Your task to perform on an android device: add a contact Image 0: 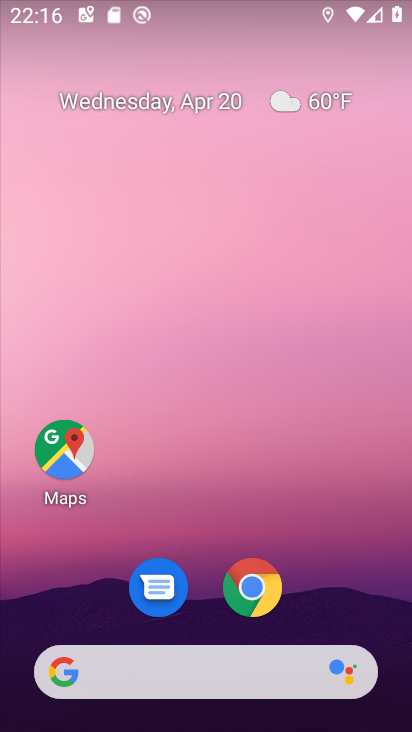
Step 0: drag from (318, 510) to (98, 66)
Your task to perform on an android device: add a contact Image 1: 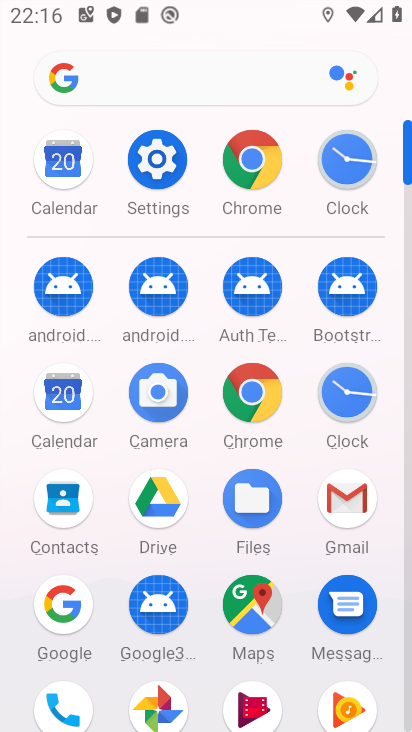
Step 1: click (58, 513)
Your task to perform on an android device: add a contact Image 2: 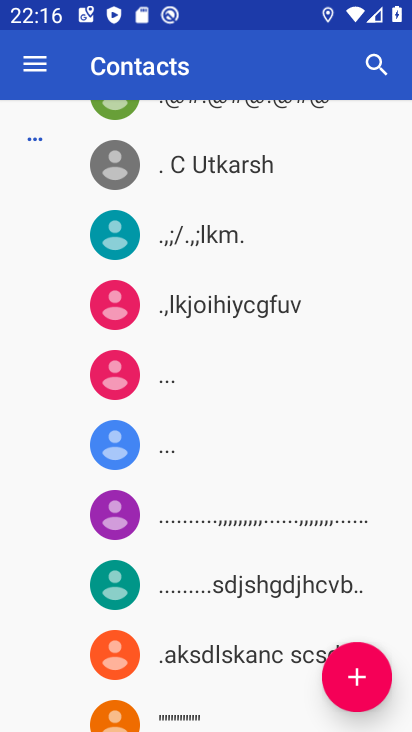
Step 2: click (358, 682)
Your task to perform on an android device: add a contact Image 3: 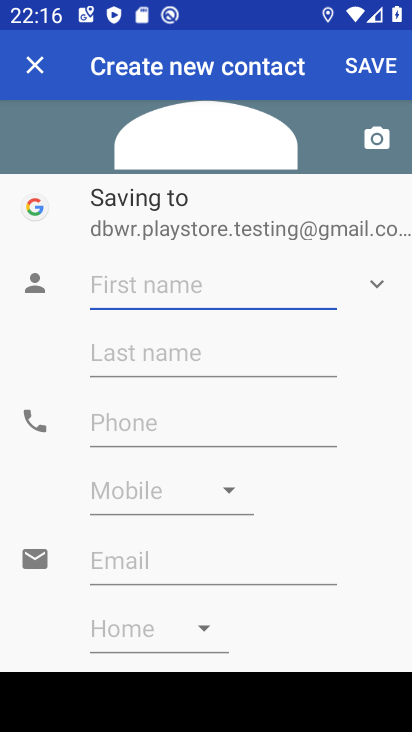
Step 3: click (140, 282)
Your task to perform on an android device: add a contact Image 4: 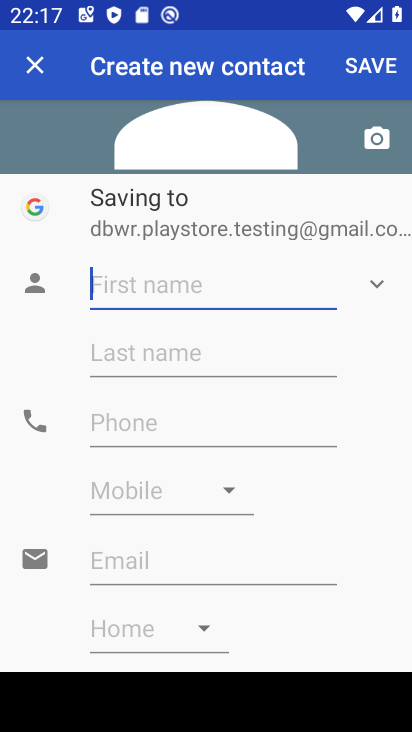
Step 4: type ",CC Utknav"
Your task to perform on an android device: add a contact Image 5: 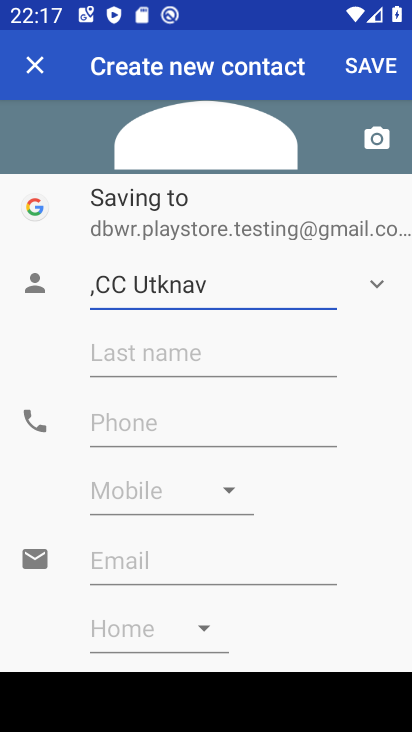
Step 5: click (125, 418)
Your task to perform on an android device: add a contact Image 6: 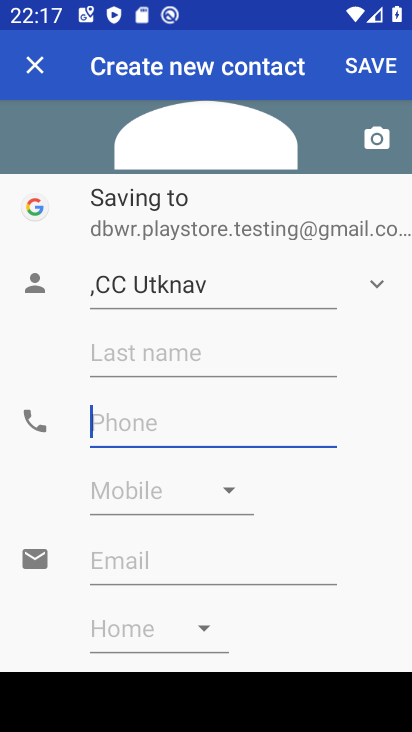
Step 6: type "100"
Your task to perform on an android device: add a contact Image 7: 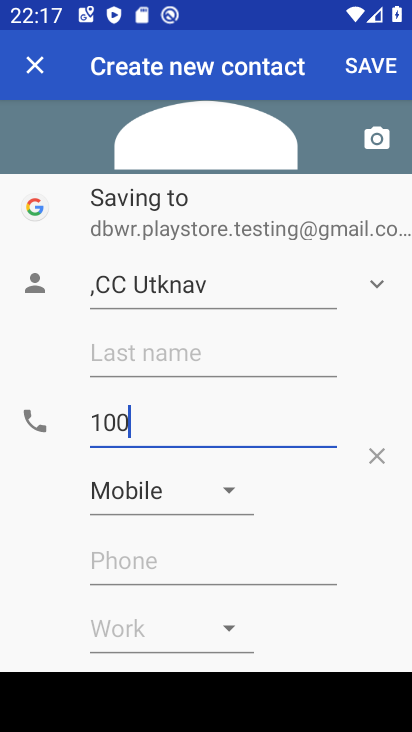
Step 7: click (357, 61)
Your task to perform on an android device: add a contact Image 8: 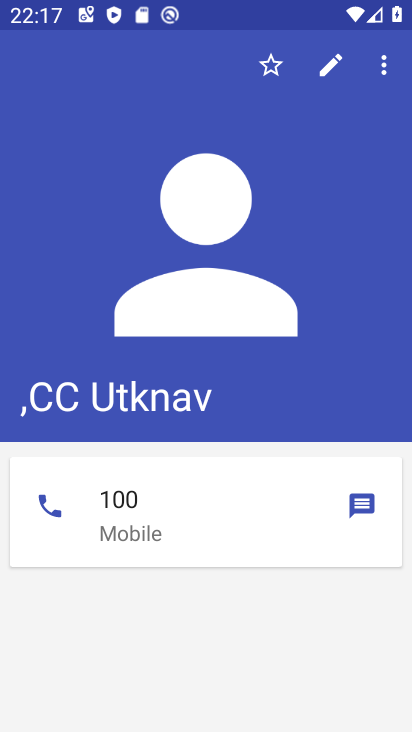
Step 8: task complete